Your task to perform on an android device: toggle location history Image 0: 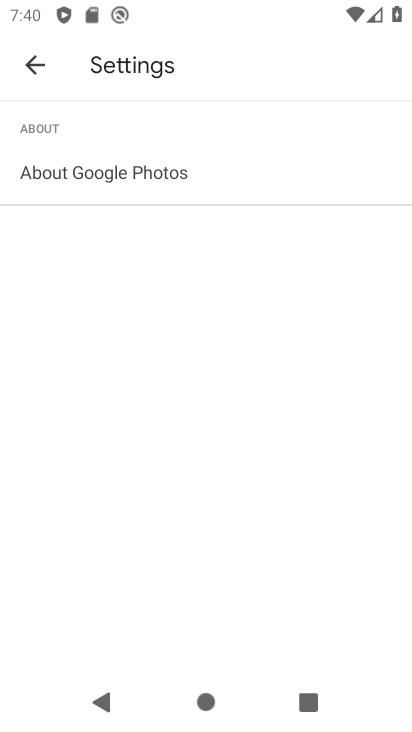
Step 0: press home button
Your task to perform on an android device: toggle location history Image 1: 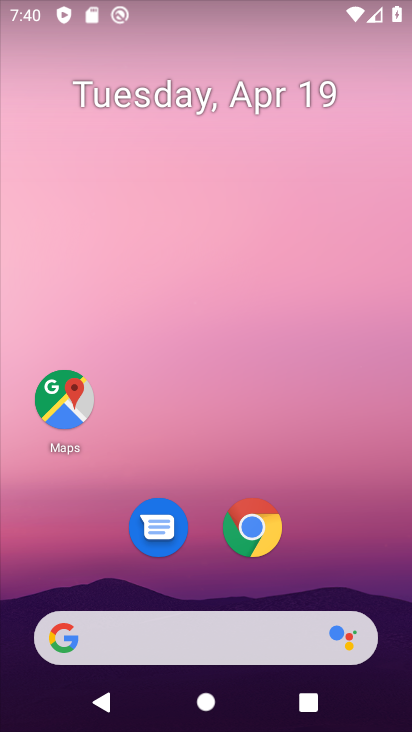
Step 1: drag from (377, 582) to (378, 160)
Your task to perform on an android device: toggle location history Image 2: 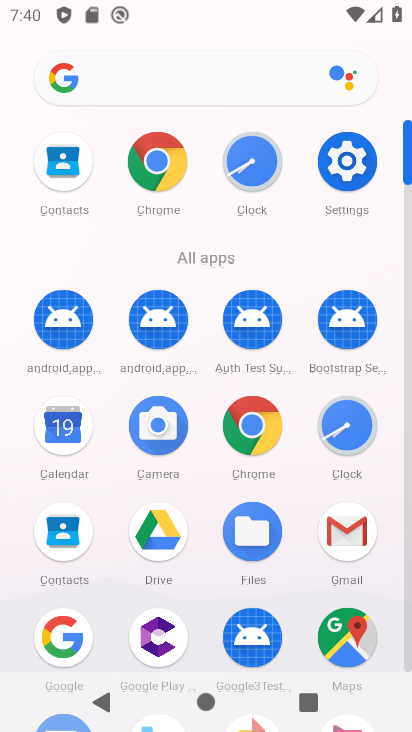
Step 2: click (347, 180)
Your task to perform on an android device: toggle location history Image 3: 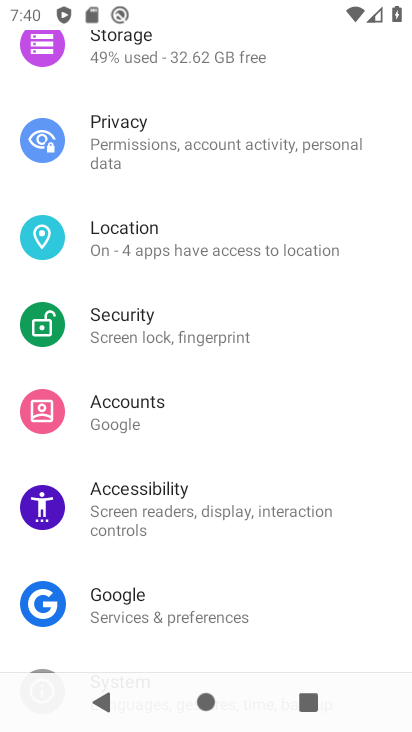
Step 3: click (182, 244)
Your task to perform on an android device: toggle location history Image 4: 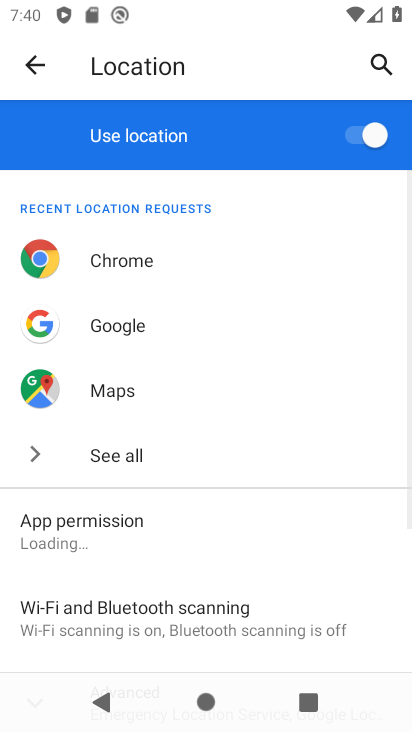
Step 4: drag from (355, 604) to (363, 271)
Your task to perform on an android device: toggle location history Image 5: 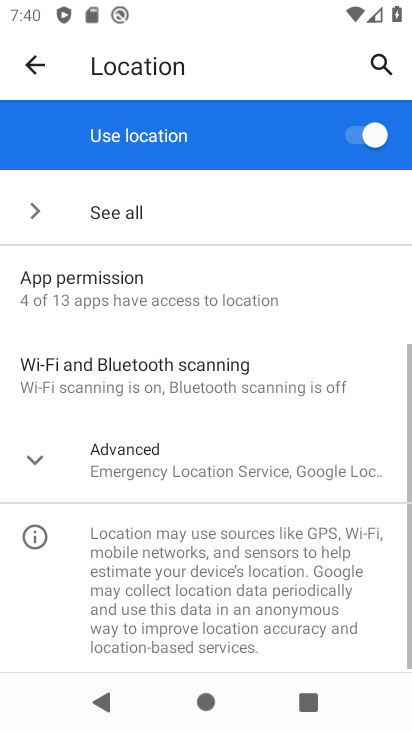
Step 5: click (314, 452)
Your task to perform on an android device: toggle location history Image 6: 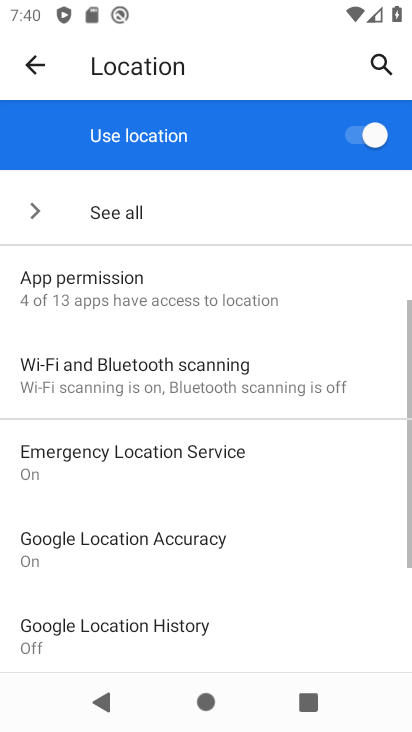
Step 6: drag from (381, 584) to (393, 336)
Your task to perform on an android device: toggle location history Image 7: 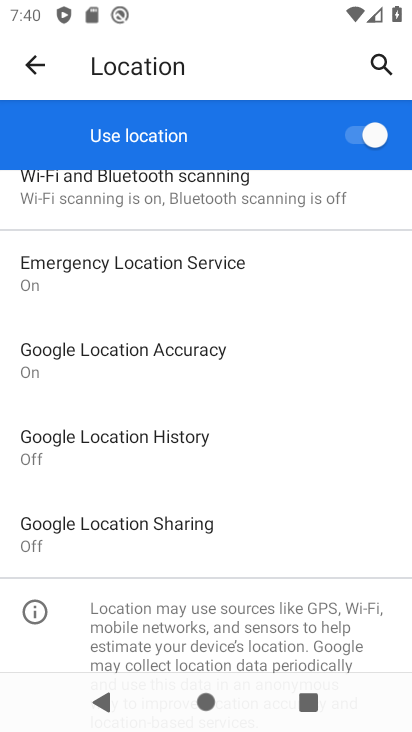
Step 7: click (188, 432)
Your task to perform on an android device: toggle location history Image 8: 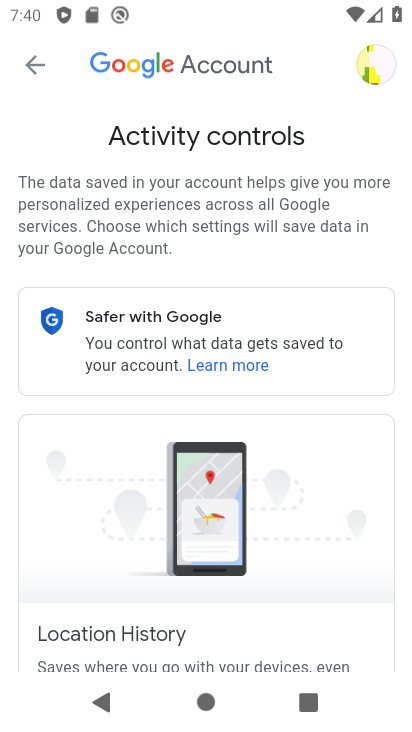
Step 8: drag from (326, 638) to (326, 206)
Your task to perform on an android device: toggle location history Image 9: 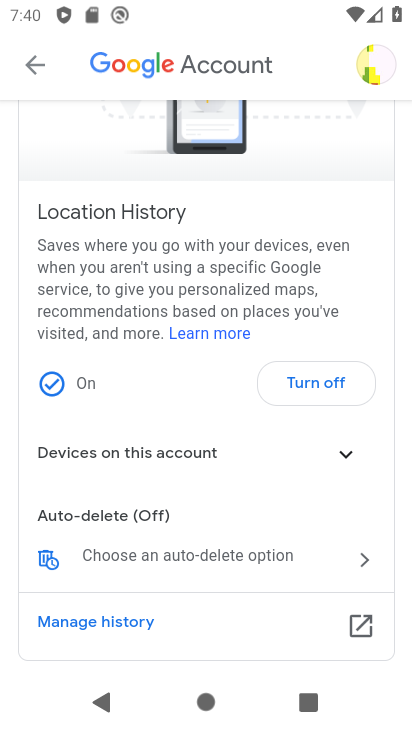
Step 9: click (329, 386)
Your task to perform on an android device: toggle location history Image 10: 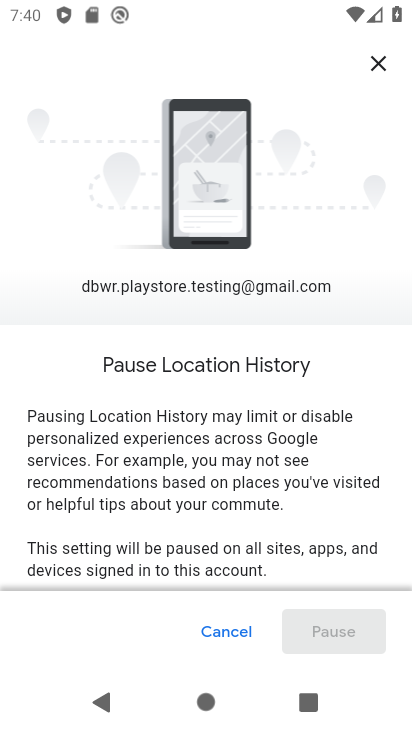
Step 10: drag from (338, 506) to (330, 129)
Your task to perform on an android device: toggle location history Image 11: 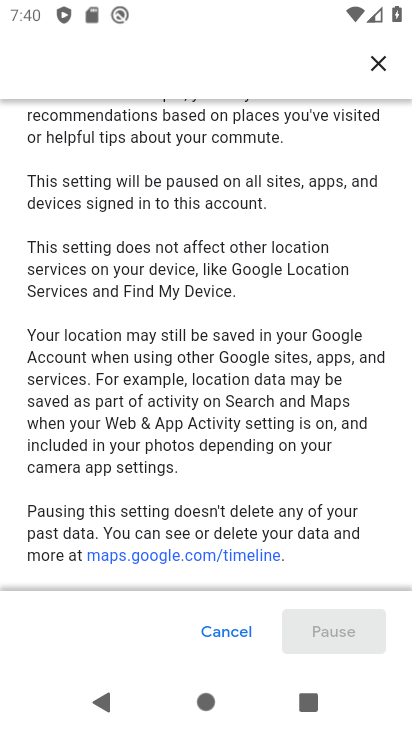
Step 11: drag from (347, 537) to (328, 251)
Your task to perform on an android device: toggle location history Image 12: 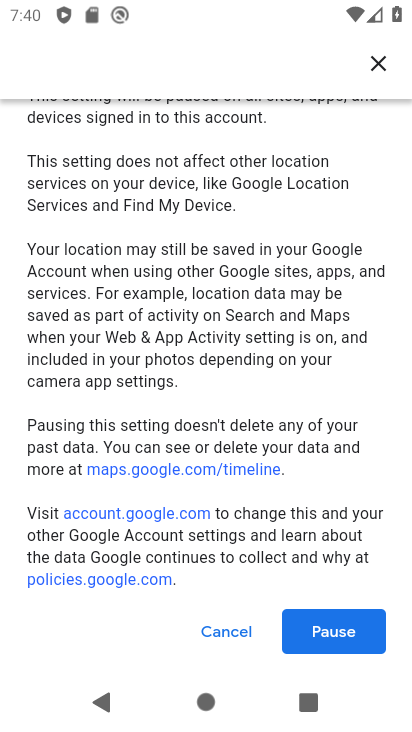
Step 12: click (345, 630)
Your task to perform on an android device: toggle location history Image 13: 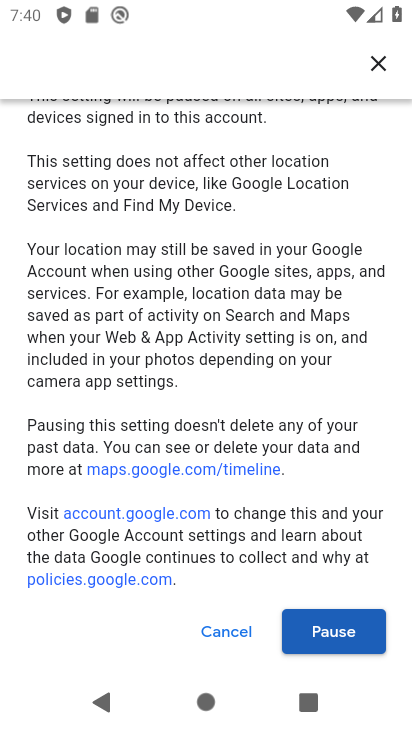
Step 13: click (342, 632)
Your task to perform on an android device: toggle location history Image 14: 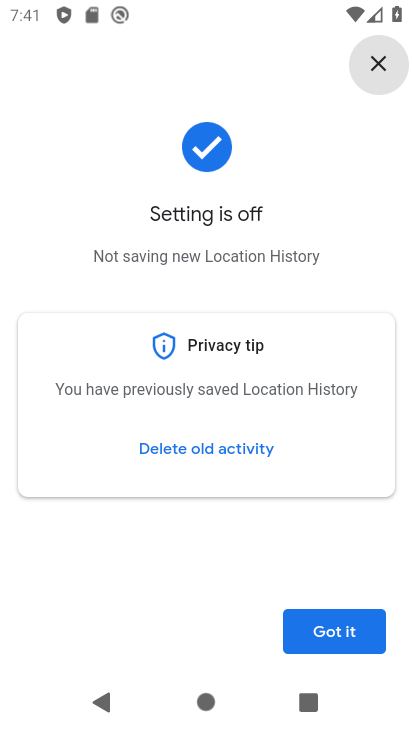
Step 14: task complete